Your task to perform on an android device: toggle show notifications on the lock screen Image 0: 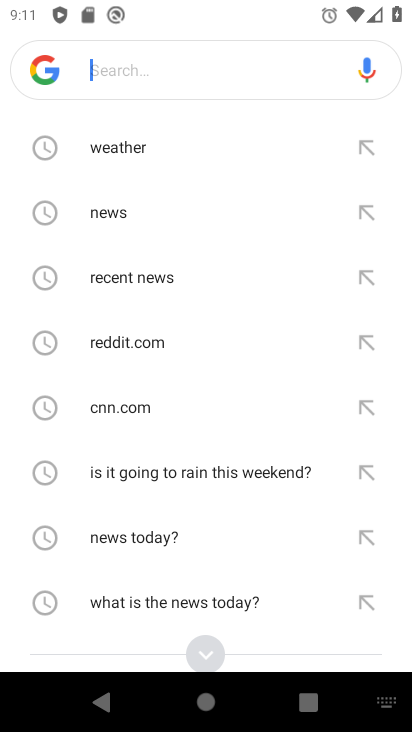
Step 0: press home button
Your task to perform on an android device: toggle show notifications on the lock screen Image 1: 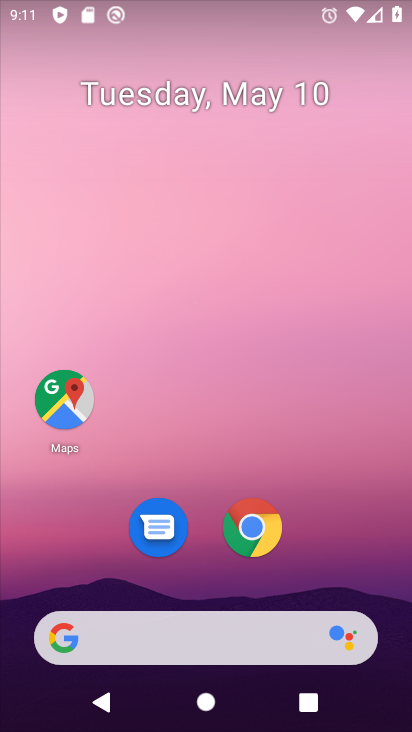
Step 1: drag from (195, 589) to (189, 109)
Your task to perform on an android device: toggle show notifications on the lock screen Image 2: 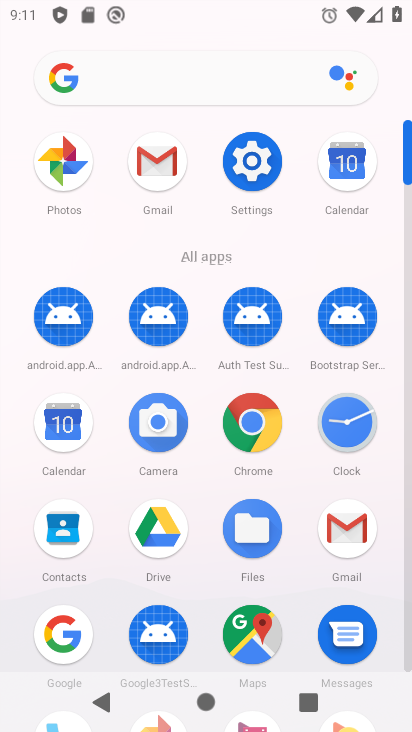
Step 2: click (251, 163)
Your task to perform on an android device: toggle show notifications on the lock screen Image 3: 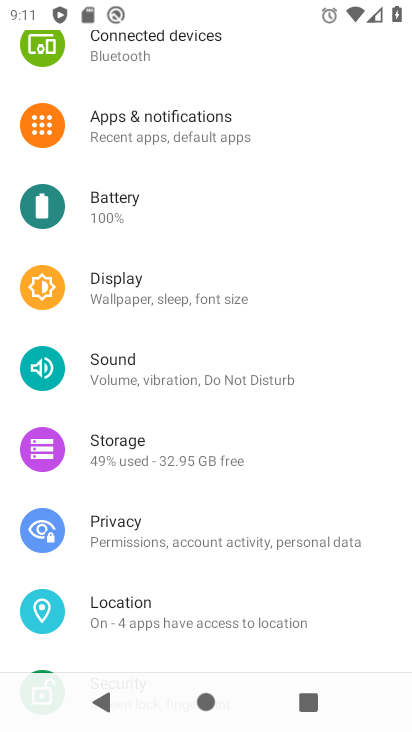
Step 3: click (184, 113)
Your task to perform on an android device: toggle show notifications on the lock screen Image 4: 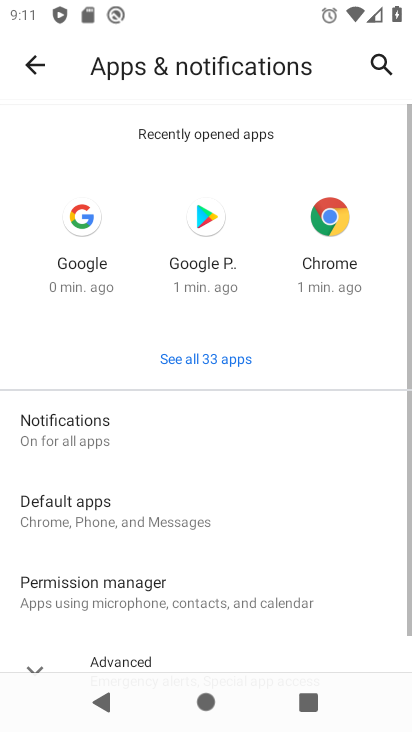
Step 4: drag from (191, 585) to (186, 124)
Your task to perform on an android device: toggle show notifications on the lock screen Image 5: 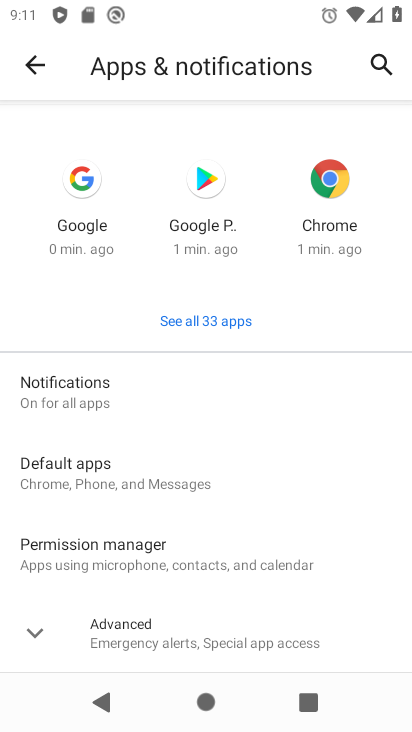
Step 5: click (164, 622)
Your task to perform on an android device: toggle show notifications on the lock screen Image 6: 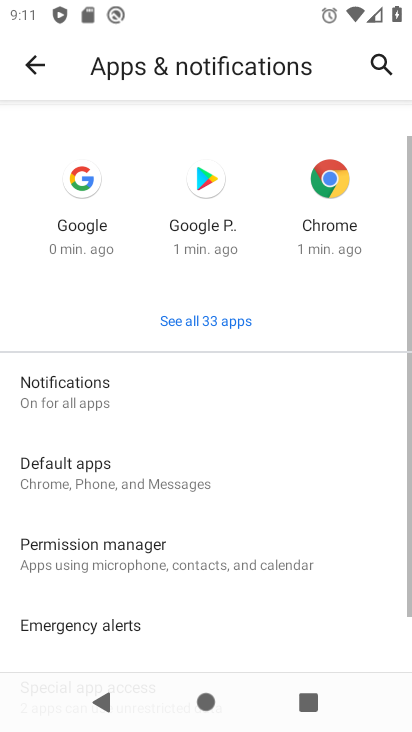
Step 6: drag from (164, 622) to (143, 269)
Your task to perform on an android device: toggle show notifications on the lock screen Image 7: 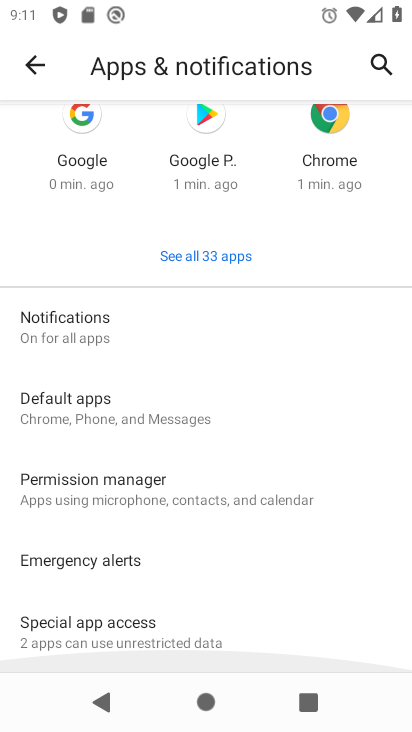
Step 7: click (92, 310)
Your task to perform on an android device: toggle show notifications on the lock screen Image 8: 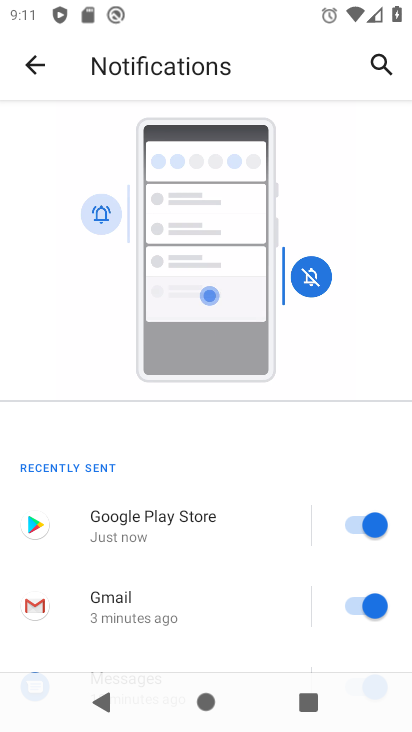
Step 8: drag from (179, 653) to (160, 205)
Your task to perform on an android device: toggle show notifications on the lock screen Image 9: 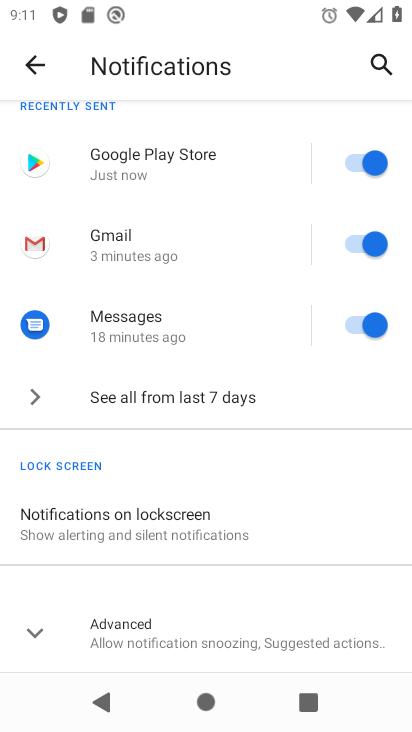
Step 9: click (183, 532)
Your task to perform on an android device: toggle show notifications on the lock screen Image 10: 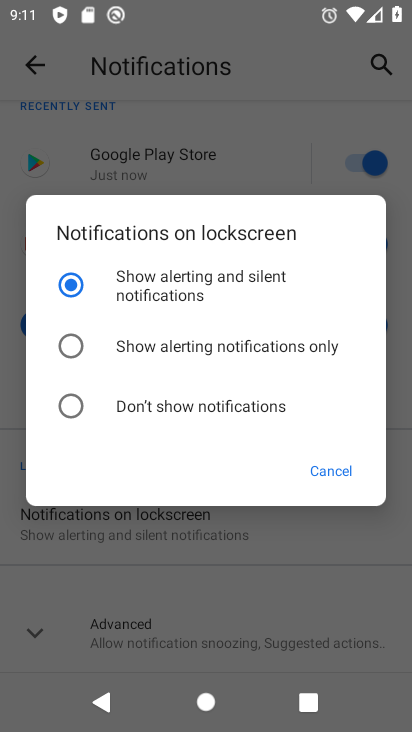
Step 10: click (161, 400)
Your task to perform on an android device: toggle show notifications on the lock screen Image 11: 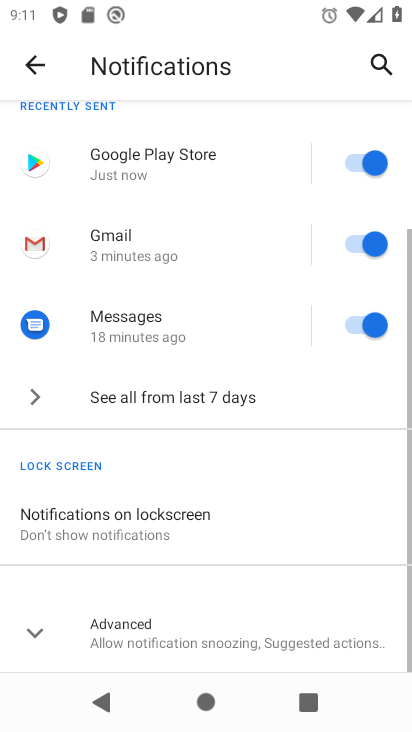
Step 11: task complete